Your task to perform on an android device: Go to calendar. Show me events next week Image 0: 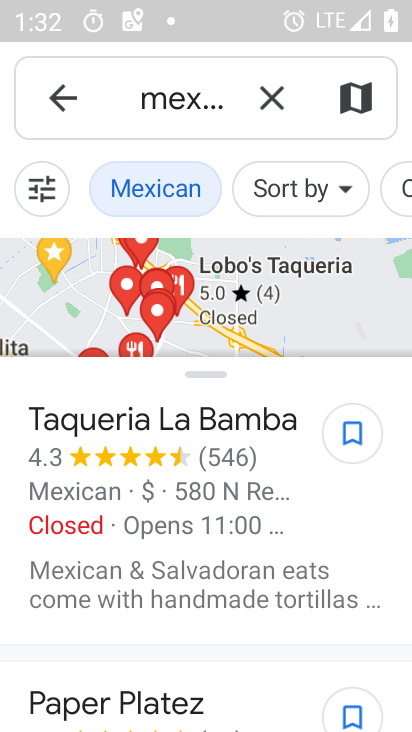
Step 0: press home button
Your task to perform on an android device: Go to calendar. Show me events next week Image 1: 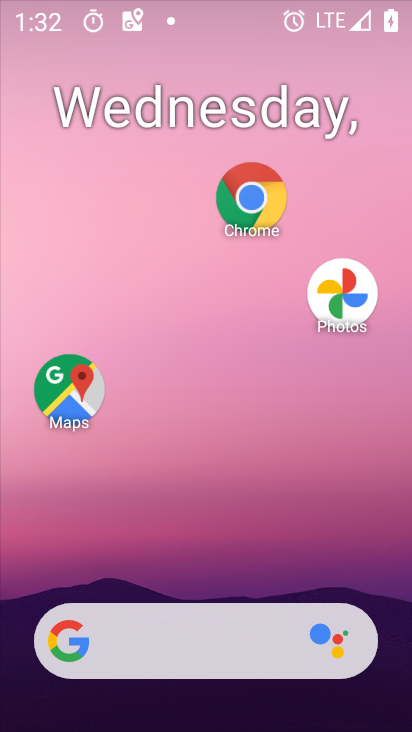
Step 1: drag from (232, 664) to (240, 261)
Your task to perform on an android device: Go to calendar. Show me events next week Image 2: 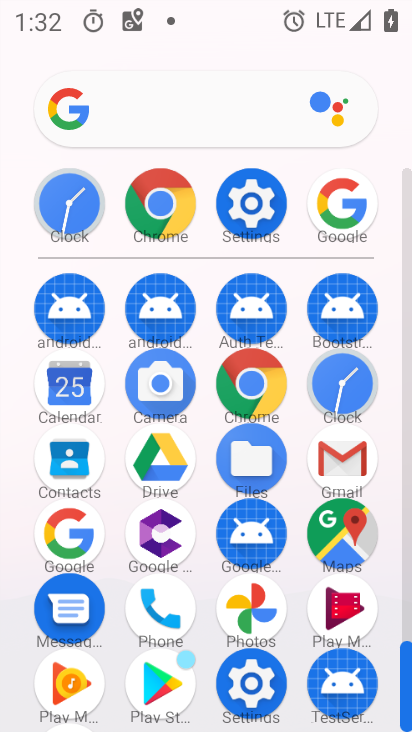
Step 2: click (64, 397)
Your task to perform on an android device: Go to calendar. Show me events next week Image 3: 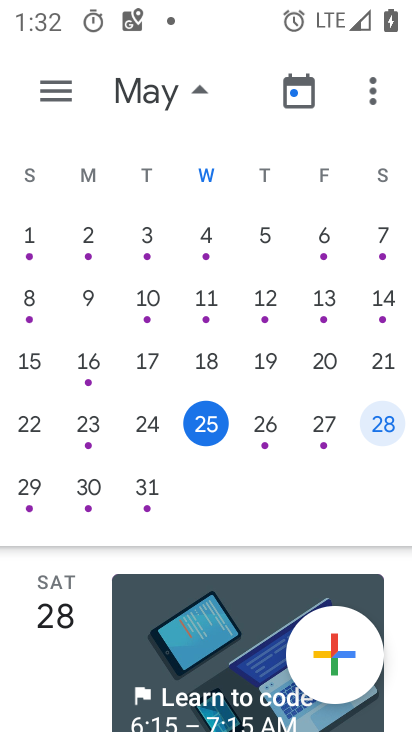
Step 3: click (25, 493)
Your task to perform on an android device: Go to calendar. Show me events next week Image 4: 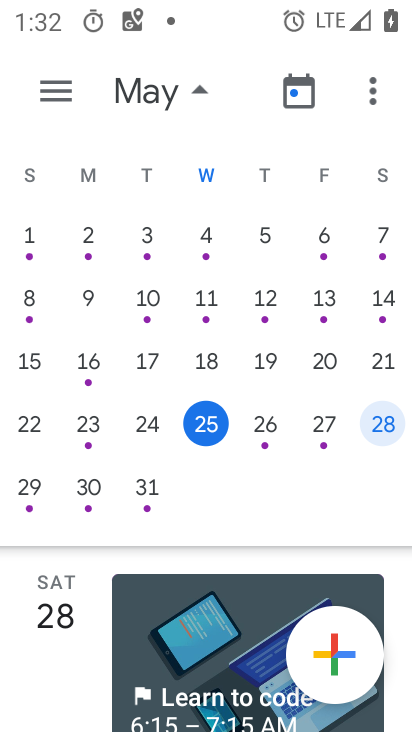
Step 4: click (37, 506)
Your task to perform on an android device: Go to calendar. Show me events next week Image 5: 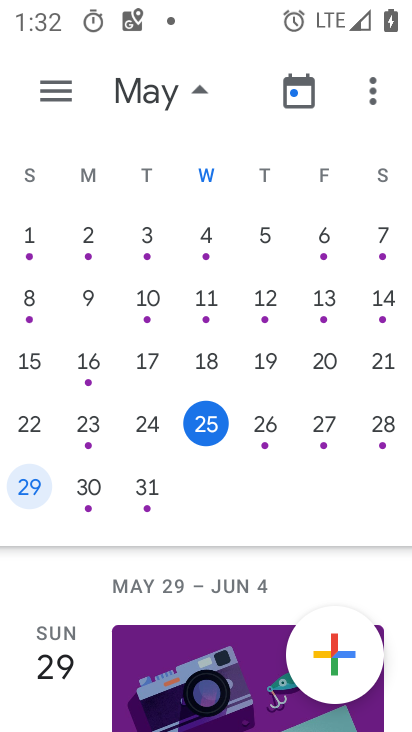
Step 5: task complete